Your task to perform on an android device: delete browsing data in the chrome app Image 0: 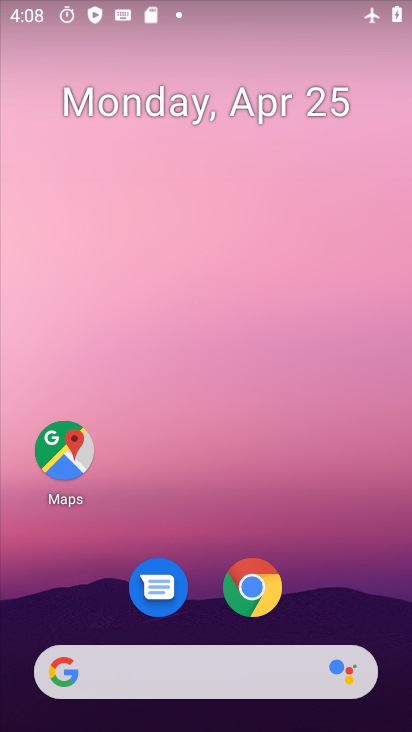
Step 0: click (250, 587)
Your task to perform on an android device: delete browsing data in the chrome app Image 1: 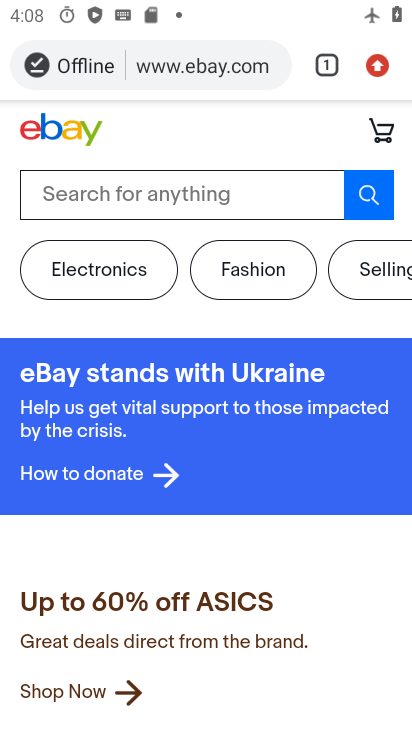
Step 1: click (400, 56)
Your task to perform on an android device: delete browsing data in the chrome app Image 2: 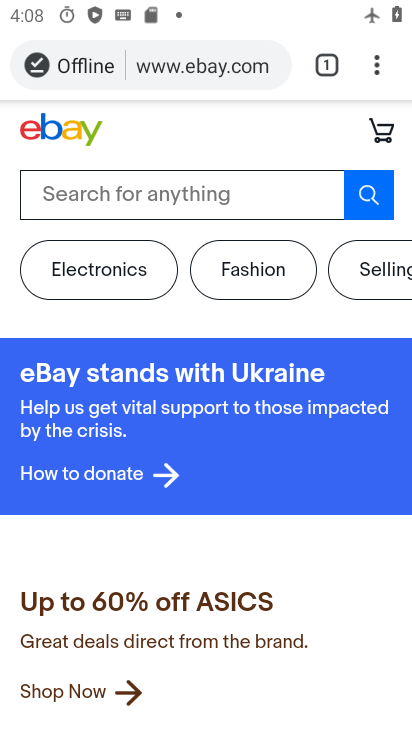
Step 2: drag from (389, 61) to (160, 275)
Your task to perform on an android device: delete browsing data in the chrome app Image 3: 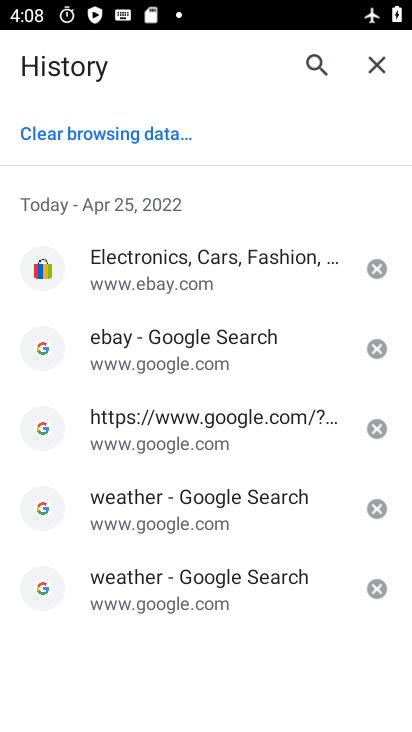
Step 3: click (131, 134)
Your task to perform on an android device: delete browsing data in the chrome app Image 4: 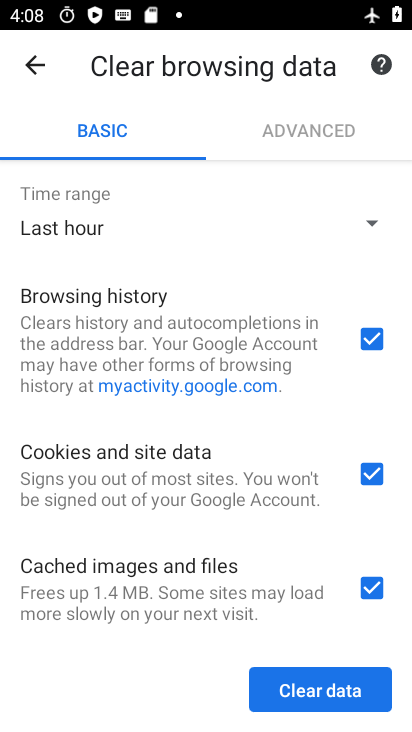
Step 4: click (333, 702)
Your task to perform on an android device: delete browsing data in the chrome app Image 5: 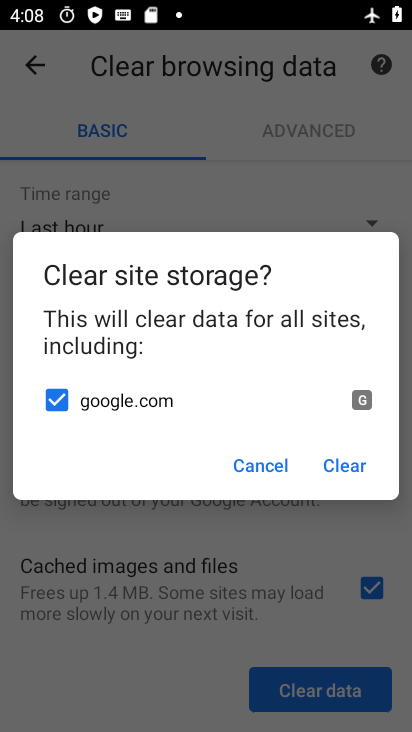
Step 5: click (257, 463)
Your task to perform on an android device: delete browsing data in the chrome app Image 6: 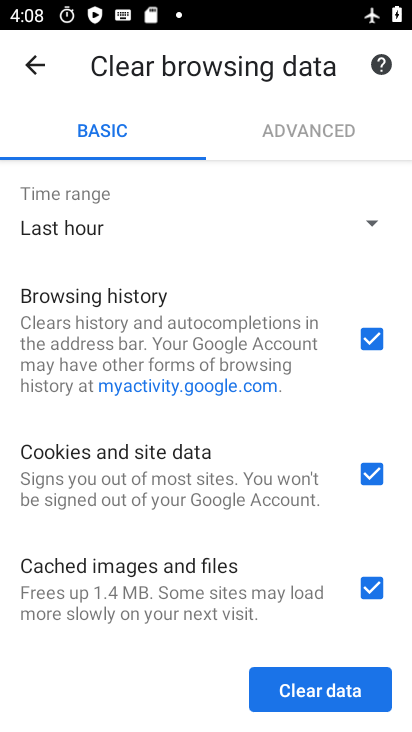
Step 6: click (237, 227)
Your task to perform on an android device: delete browsing data in the chrome app Image 7: 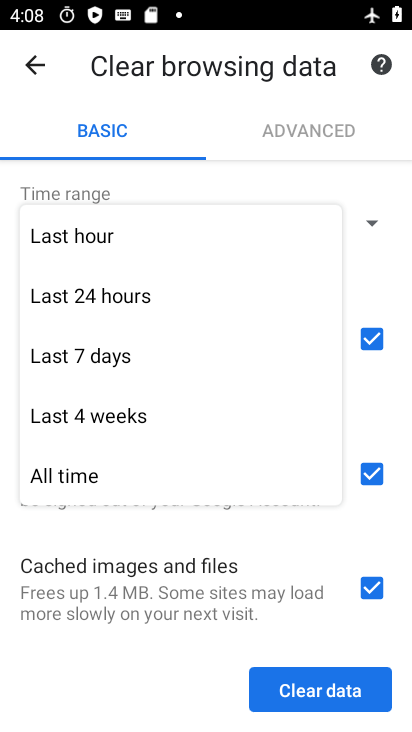
Step 7: click (48, 483)
Your task to perform on an android device: delete browsing data in the chrome app Image 8: 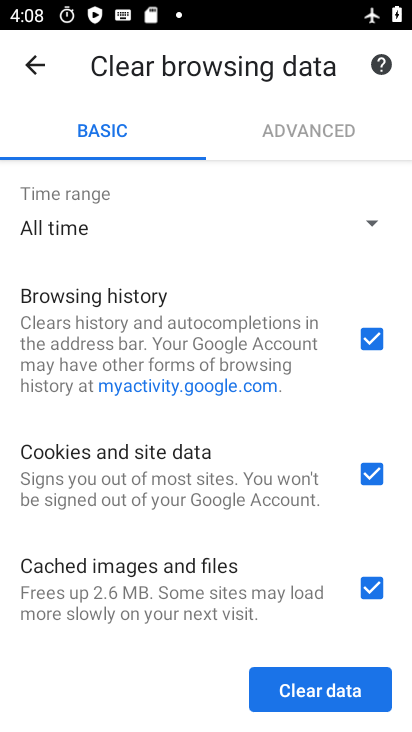
Step 8: click (347, 682)
Your task to perform on an android device: delete browsing data in the chrome app Image 9: 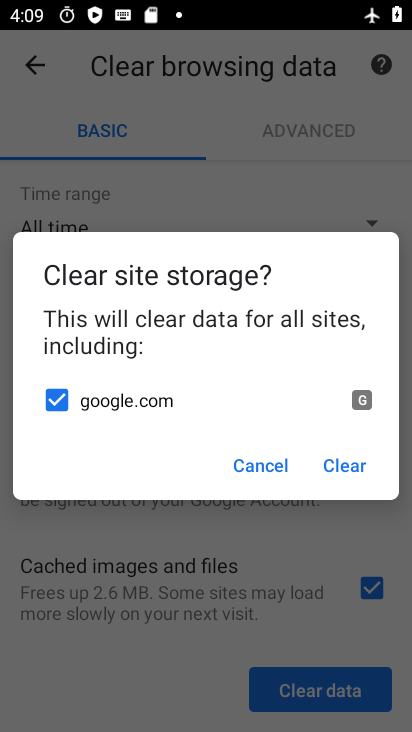
Step 9: click (336, 459)
Your task to perform on an android device: delete browsing data in the chrome app Image 10: 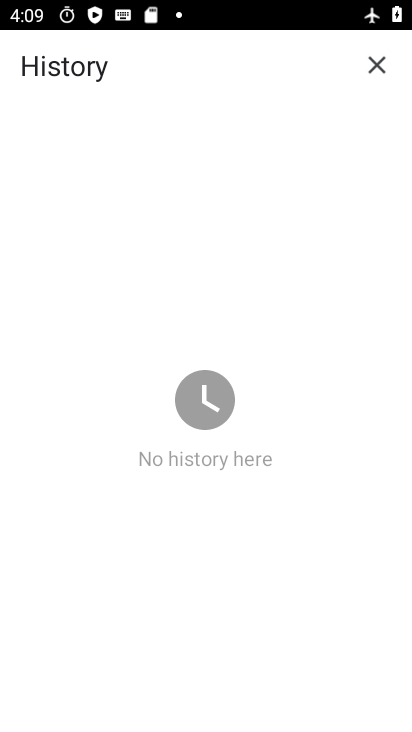
Step 10: task complete